Your task to perform on an android device: Open Reddit.com Image 0: 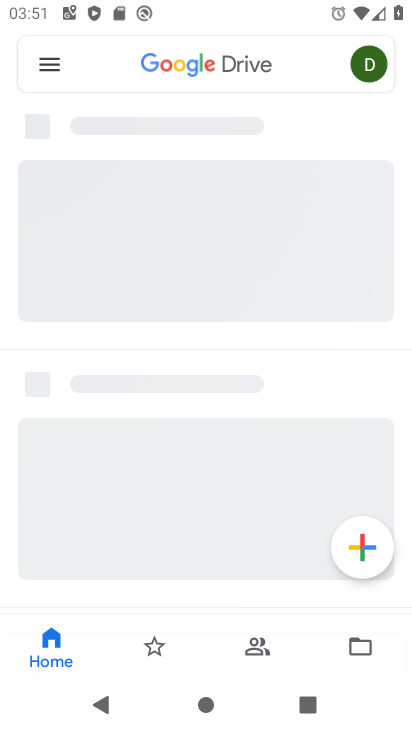
Step 0: press home button
Your task to perform on an android device: Open Reddit.com Image 1: 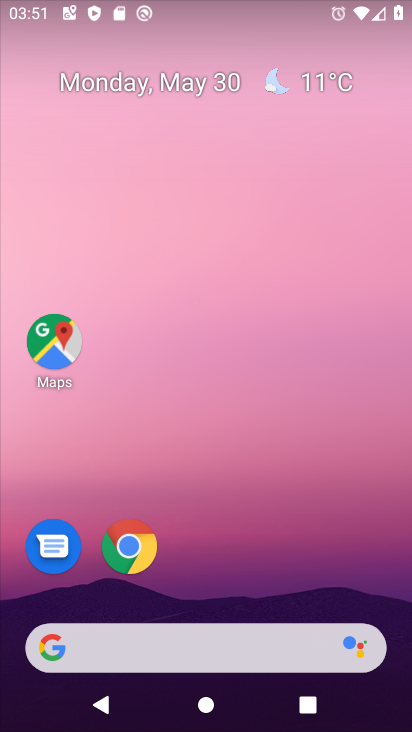
Step 1: click (131, 535)
Your task to perform on an android device: Open Reddit.com Image 2: 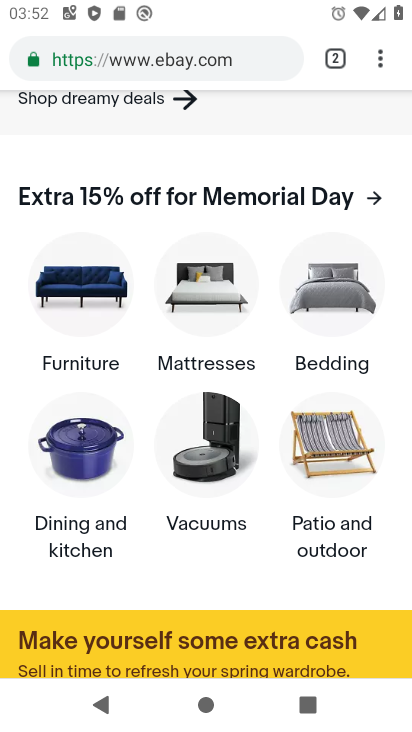
Step 2: click (326, 60)
Your task to perform on an android device: Open Reddit.com Image 3: 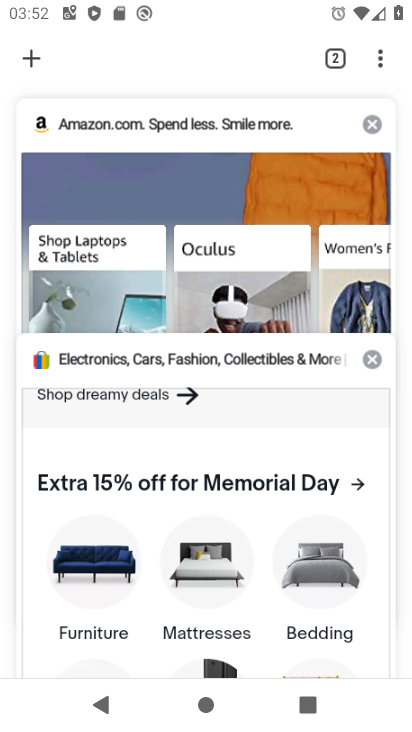
Step 3: click (373, 353)
Your task to perform on an android device: Open Reddit.com Image 4: 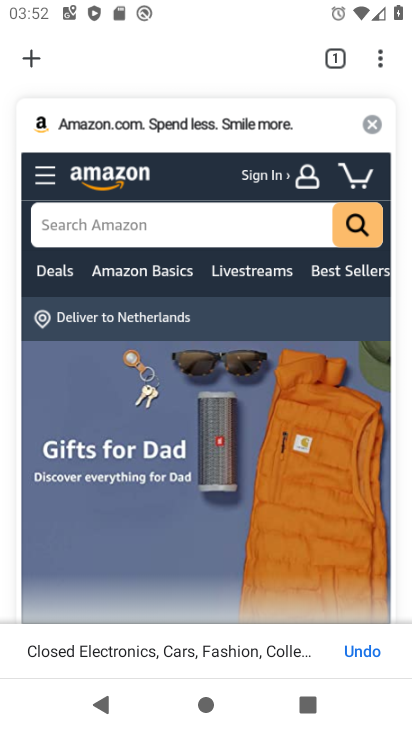
Step 4: click (371, 120)
Your task to perform on an android device: Open Reddit.com Image 5: 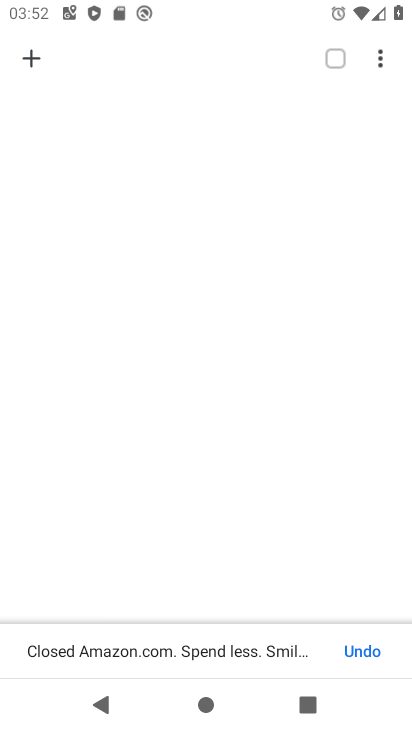
Step 5: click (35, 63)
Your task to perform on an android device: Open Reddit.com Image 6: 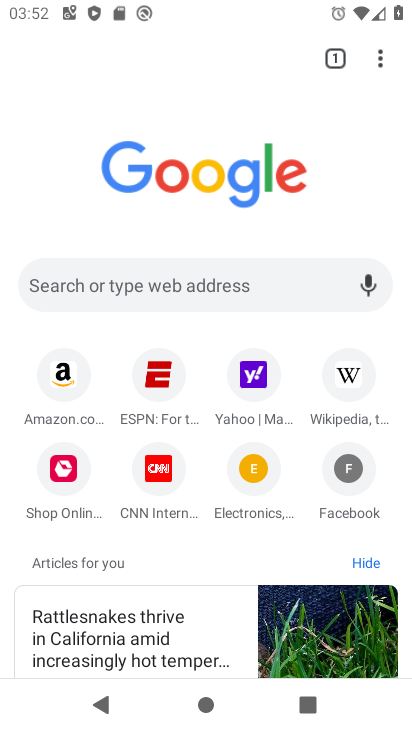
Step 6: click (98, 285)
Your task to perform on an android device: Open Reddit.com Image 7: 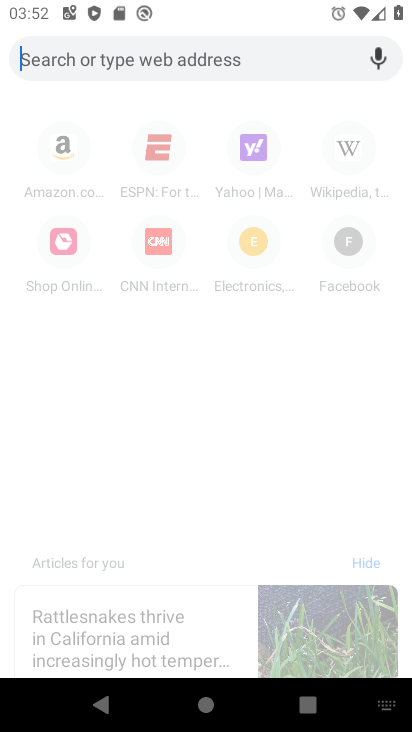
Step 7: type "reddit.com"
Your task to perform on an android device: Open Reddit.com Image 8: 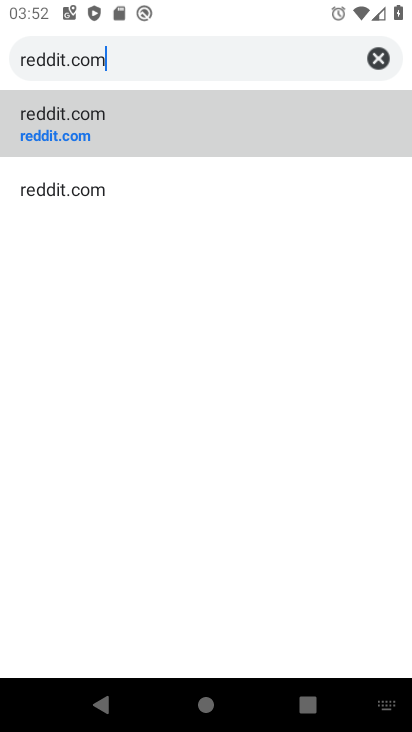
Step 8: click (85, 128)
Your task to perform on an android device: Open Reddit.com Image 9: 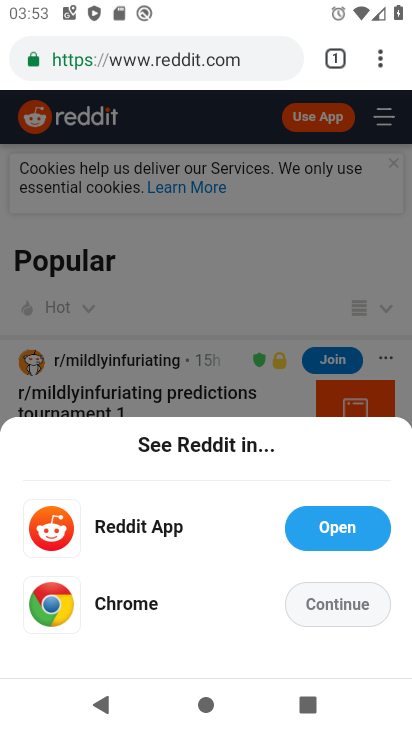
Step 9: click (343, 598)
Your task to perform on an android device: Open Reddit.com Image 10: 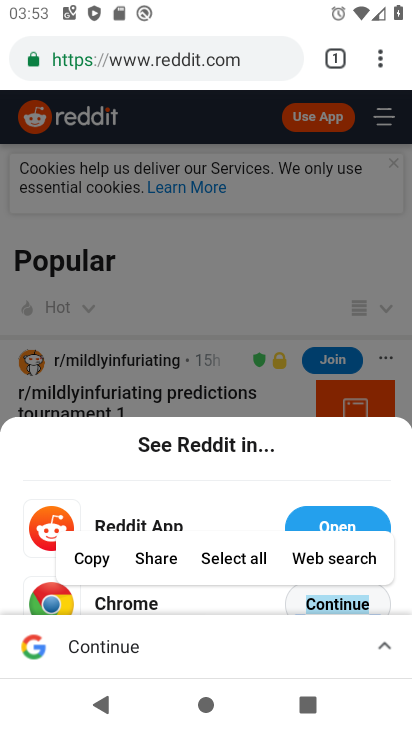
Step 10: click (361, 600)
Your task to perform on an android device: Open Reddit.com Image 11: 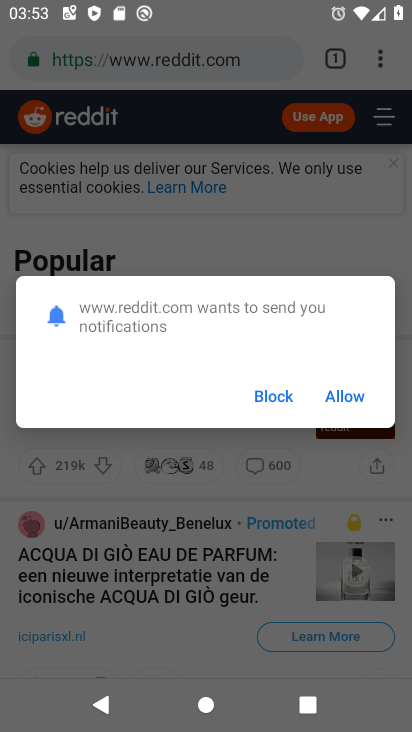
Step 11: click (383, 595)
Your task to perform on an android device: Open Reddit.com Image 12: 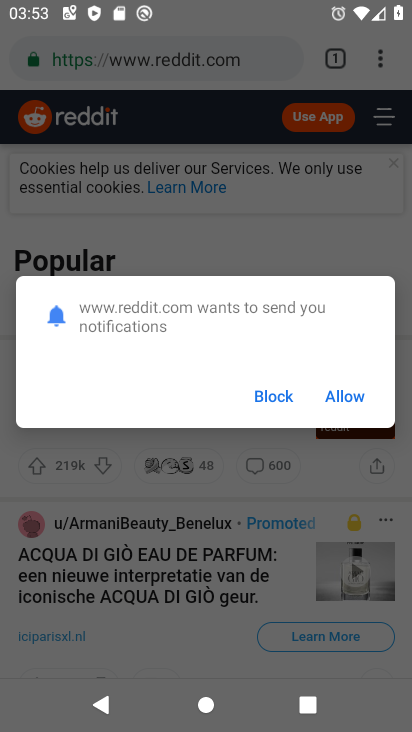
Step 12: click (360, 393)
Your task to perform on an android device: Open Reddit.com Image 13: 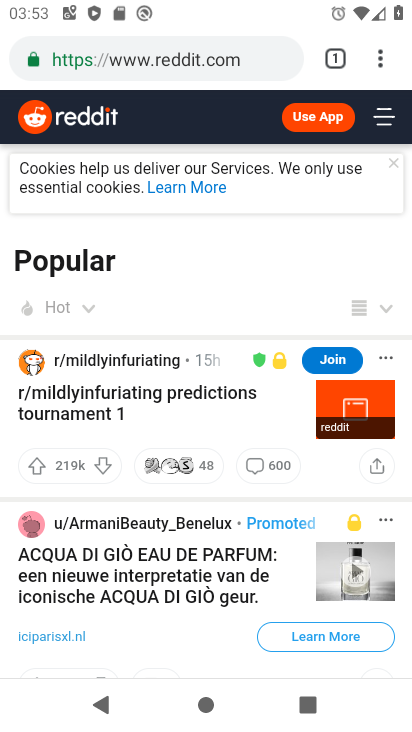
Step 13: task complete